Your task to perform on an android device: Search for Mexican restaurants on Maps Image 0: 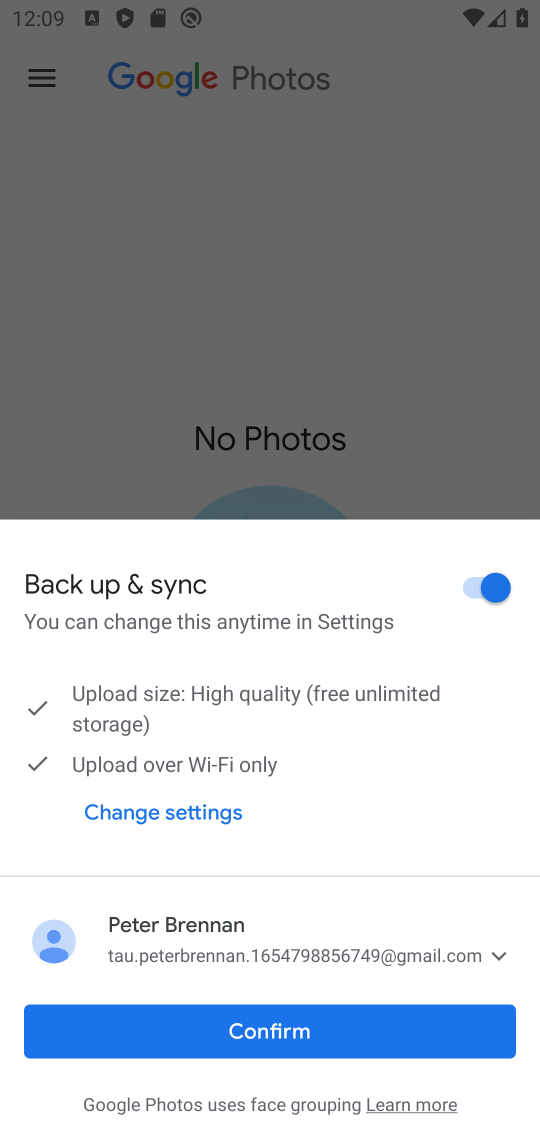
Step 0: press home button
Your task to perform on an android device: Search for Mexican restaurants on Maps Image 1: 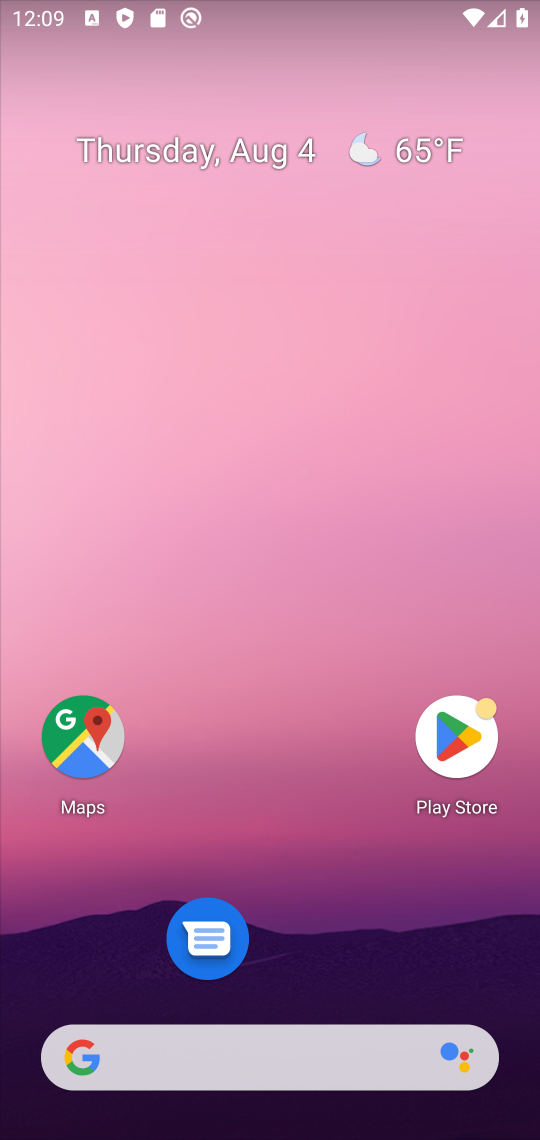
Step 1: click (117, 743)
Your task to perform on an android device: Search for Mexican restaurants on Maps Image 2: 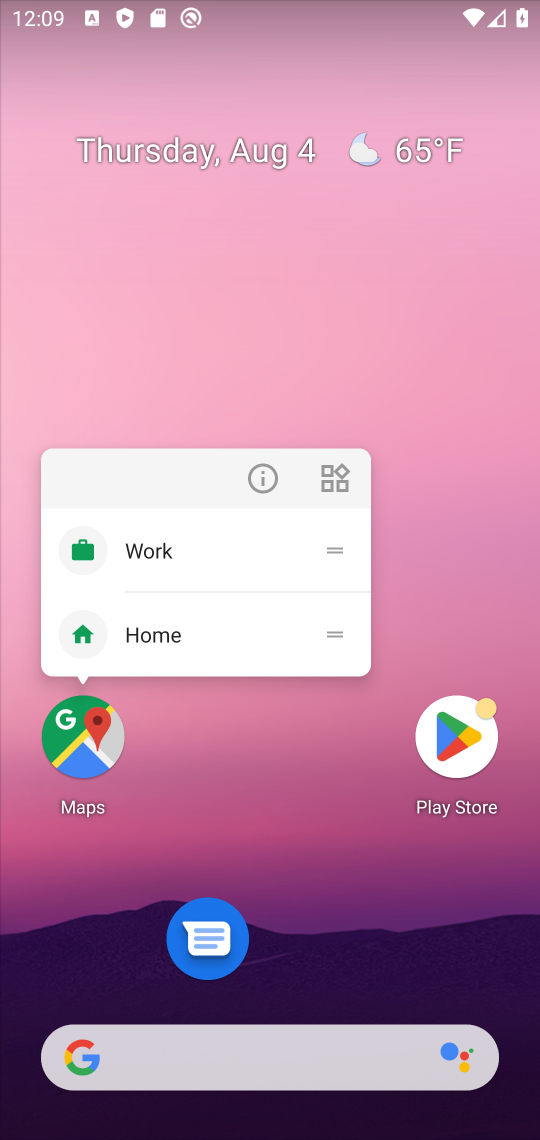
Step 2: click (117, 743)
Your task to perform on an android device: Search for Mexican restaurants on Maps Image 3: 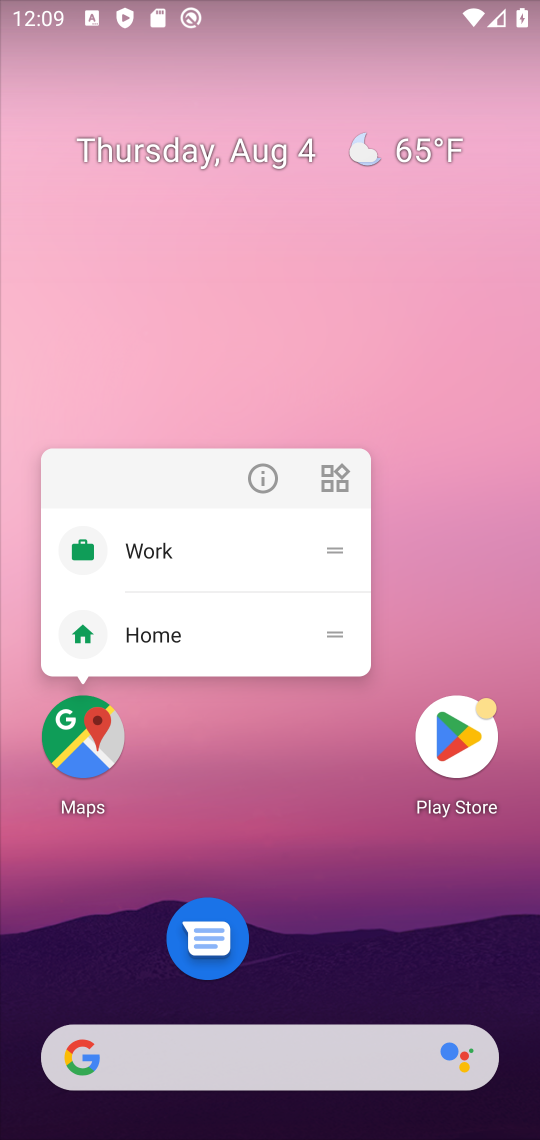
Step 3: click (117, 743)
Your task to perform on an android device: Search for Mexican restaurants on Maps Image 4: 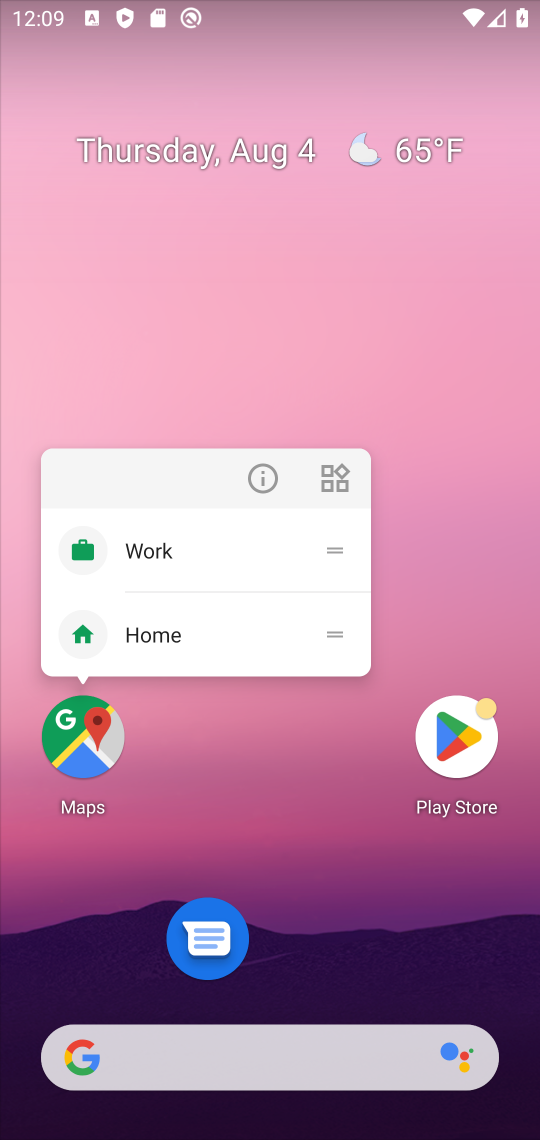
Step 4: click (45, 738)
Your task to perform on an android device: Search for Mexican restaurants on Maps Image 5: 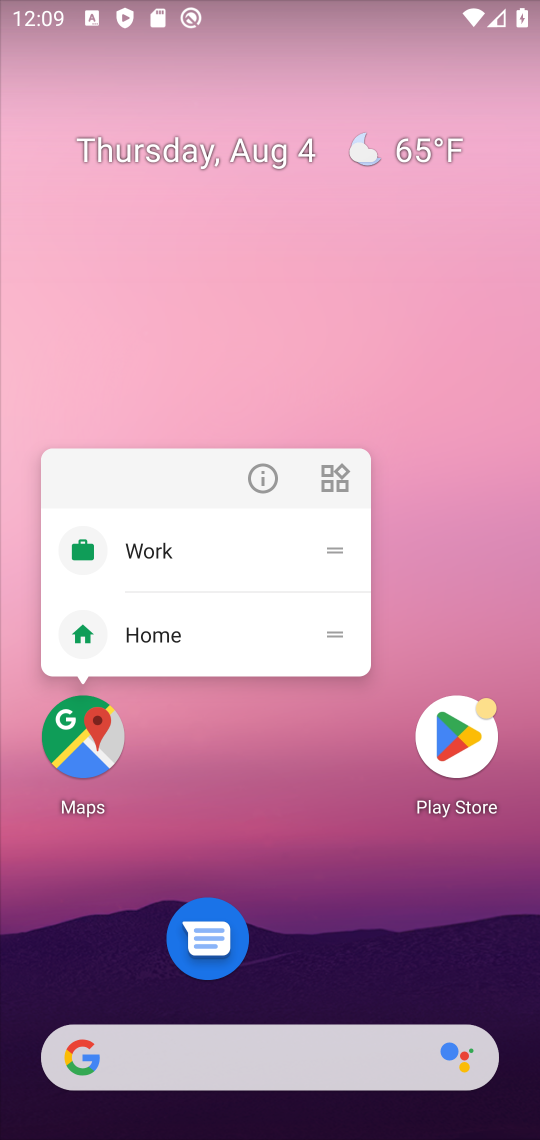
Step 5: click (45, 738)
Your task to perform on an android device: Search for Mexican restaurants on Maps Image 6: 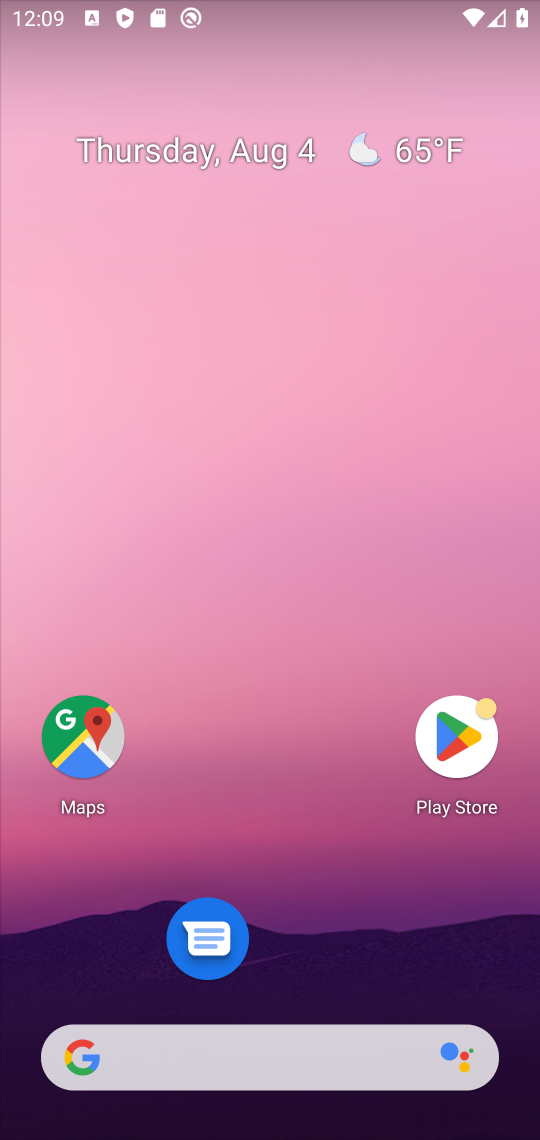
Step 6: click (45, 738)
Your task to perform on an android device: Search for Mexican restaurants on Maps Image 7: 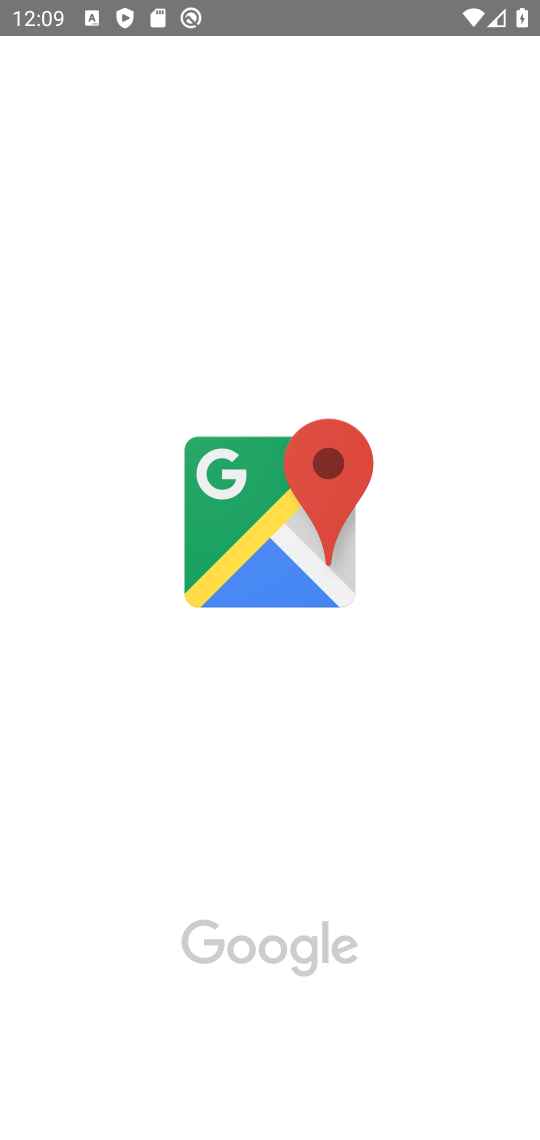
Step 7: click (71, 750)
Your task to perform on an android device: Search for Mexican restaurants on Maps Image 8: 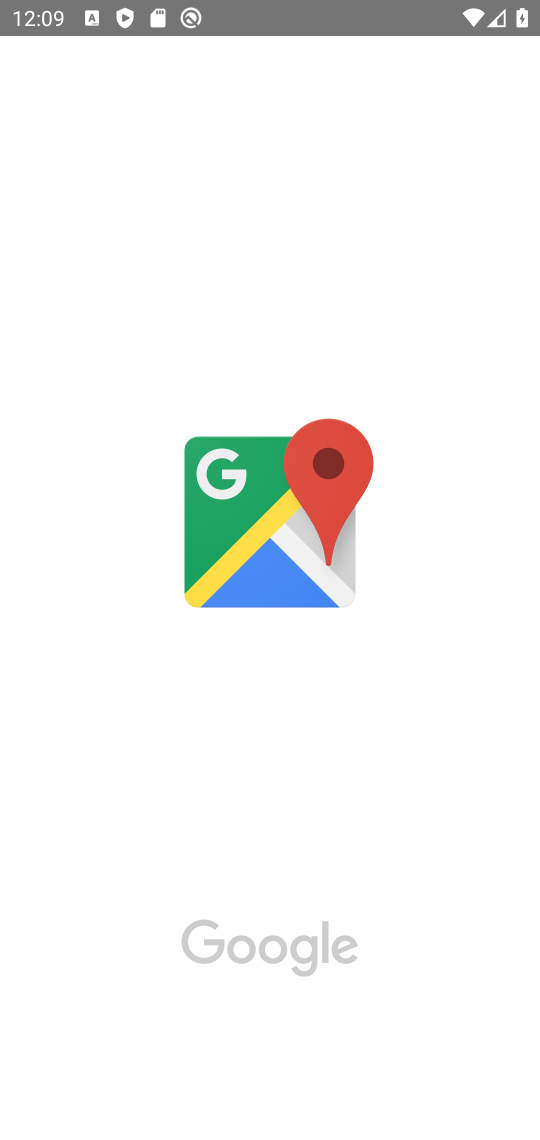
Step 8: click (71, 750)
Your task to perform on an android device: Search for Mexican restaurants on Maps Image 9: 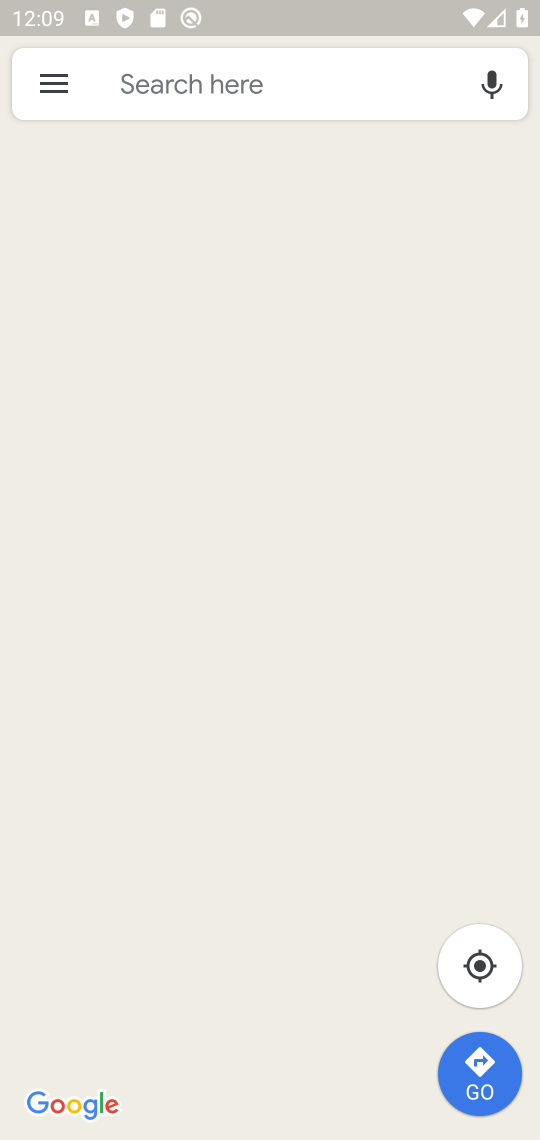
Step 9: click (167, 79)
Your task to perform on an android device: Search for Mexican restaurants on Maps Image 10: 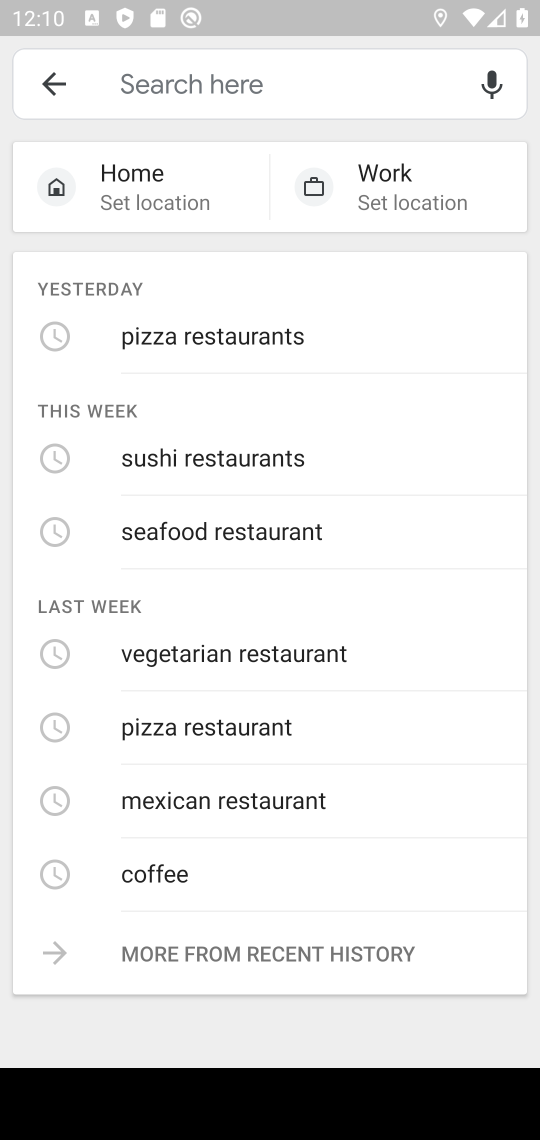
Step 10: type "mexican restau"
Your task to perform on an android device: Search for Mexican restaurants on Maps Image 11: 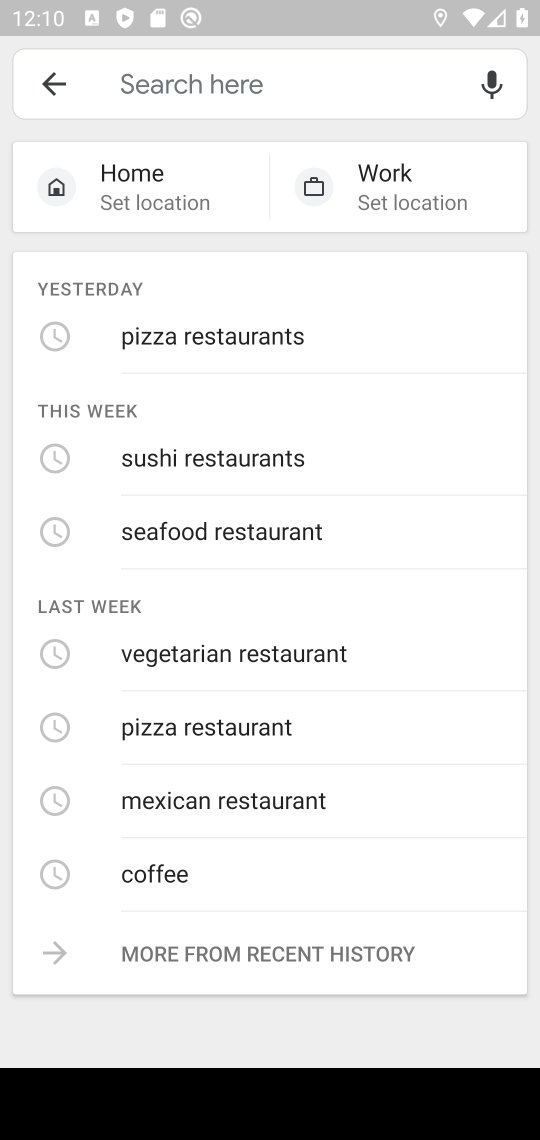
Step 11: click (292, 808)
Your task to perform on an android device: Search for Mexican restaurants on Maps Image 12: 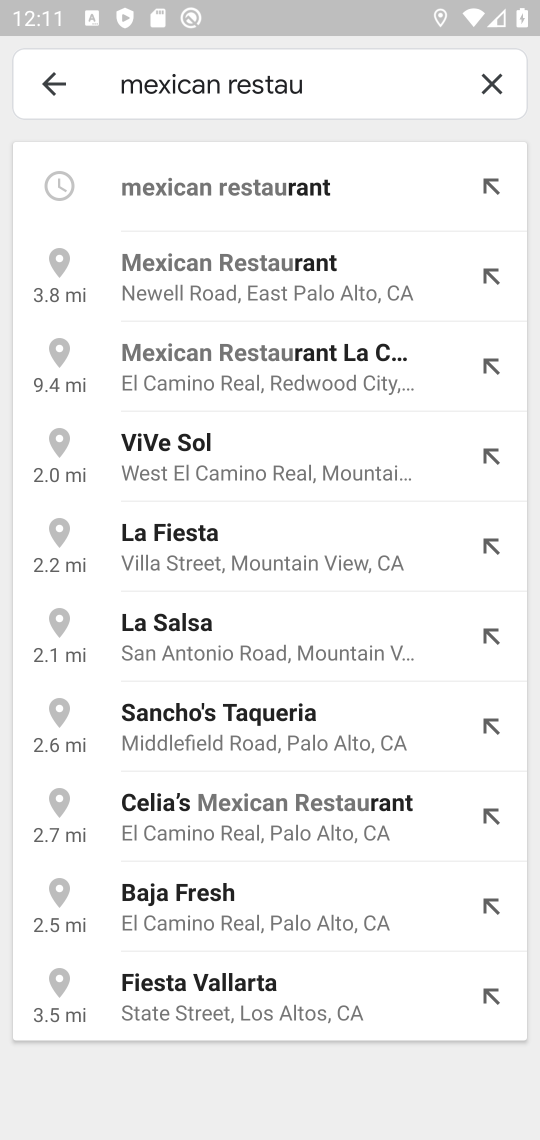
Step 12: click (216, 183)
Your task to perform on an android device: Search for Mexican restaurants on Maps Image 13: 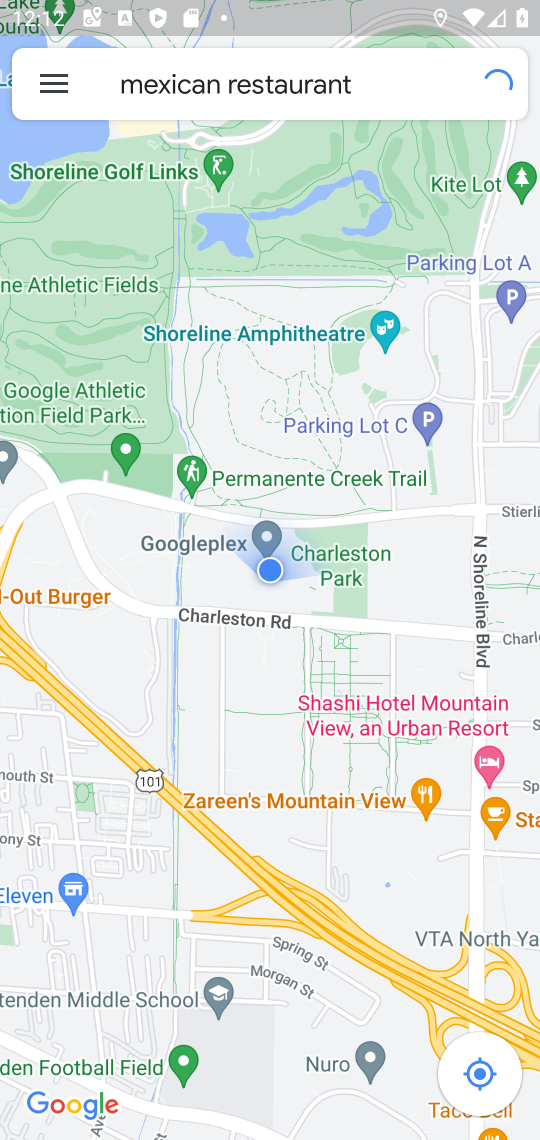
Step 13: task complete